Your task to perform on an android device: Open Chrome and go to settings Image 0: 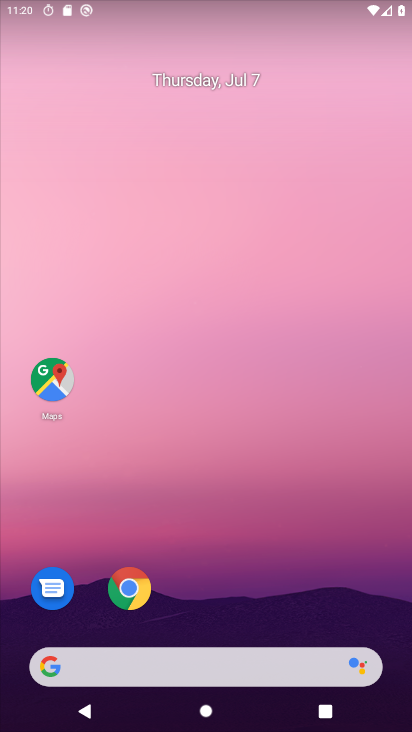
Step 0: press home button
Your task to perform on an android device: Open Chrome and go to settings Image 1: 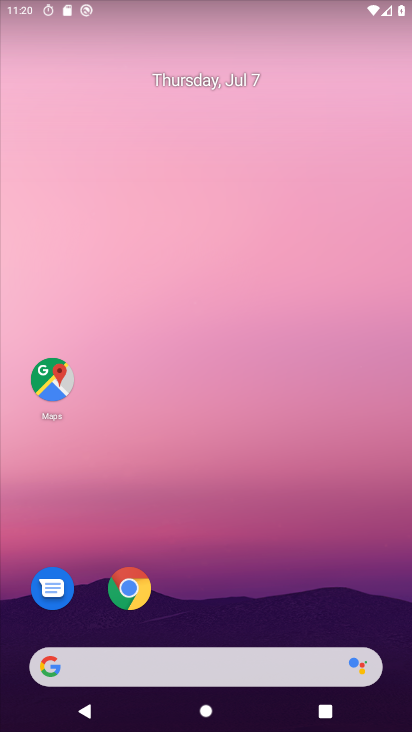
Step 1: click (127, 584)
Your task to perform on an android device: Open Chrome and go to settings Image 2: 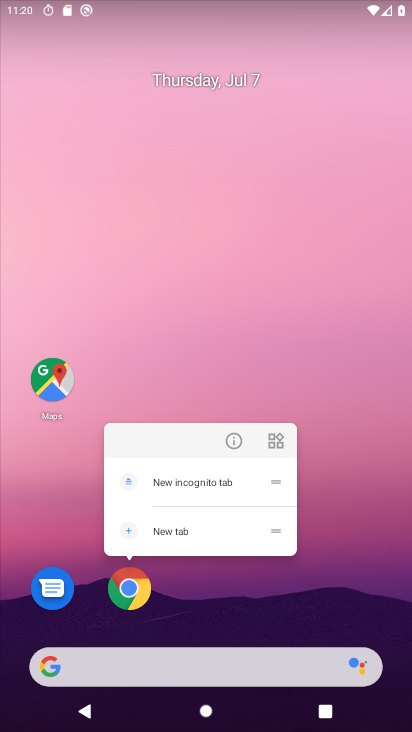
Step 2: click (140, 589)
Your task to perform on an android device: Open Chrome and go to settings Image 3: 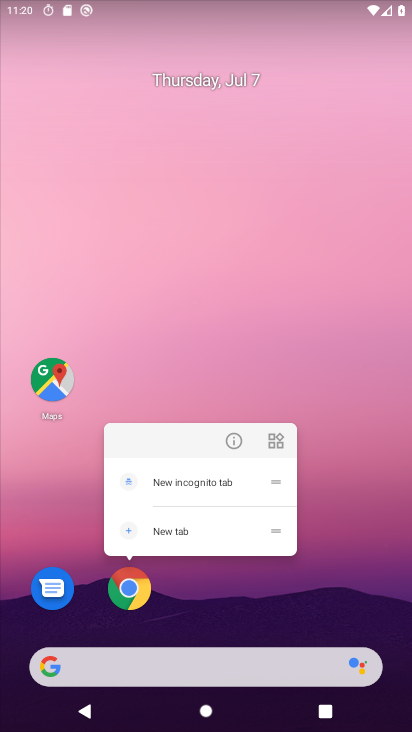
Step 3: click (131, 590)
Your task to perform on an android device: Open Chrome and go to settings Image 4: 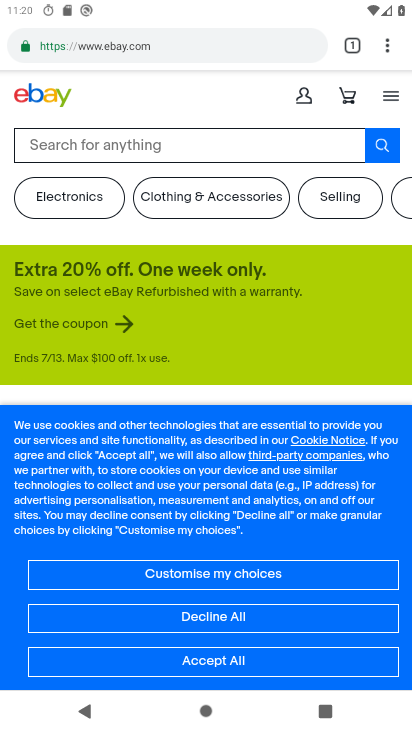
Step 4: task complete